Your task to perform on an android device: uninstall "Truecaller" Image 0: 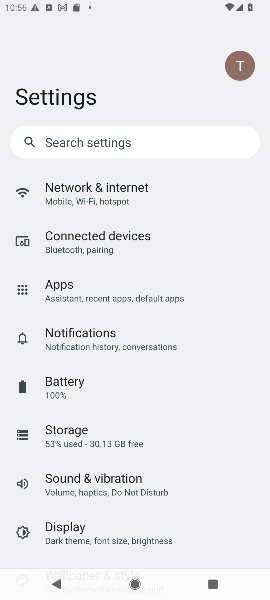
Step 0: press home button
Your task to perform on an android device: uninstall "Truecaller" Image 1: 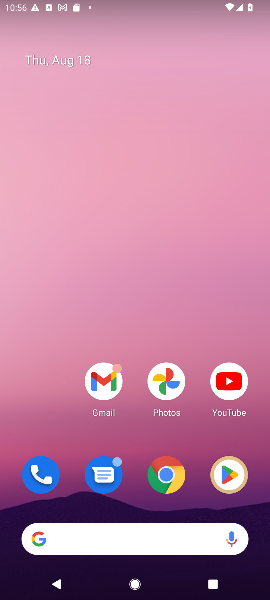
Step 1: drag from (147, 509) to (124, 97)
Your task to perform on an android device: uninstall "Truecaller" Image 2: 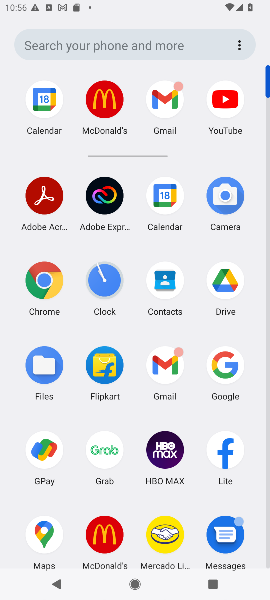
Step 2: drag from (65, 501) to (59, 209)
Your task to perform on an android device: uninstall "Truecaller" Image 3: 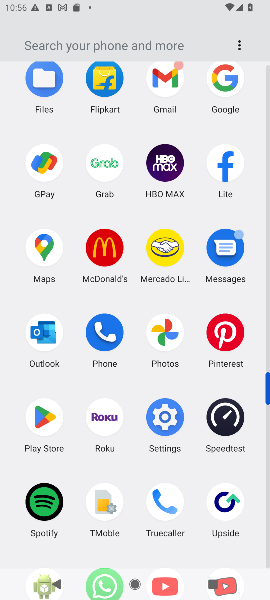
Step 3: drag from (130, 477) to (133, 199)
Your task to perform on an android device: uninstall "Truecaller" Image 4: 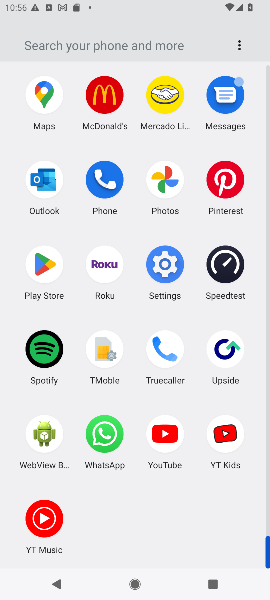
Step 4: click (46, 283)
Your task to perform on an android device: uninstall "Truecaller" Image 5: 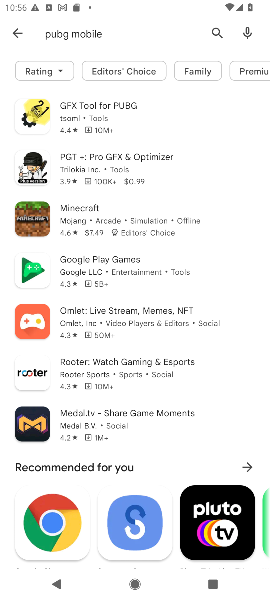
Step 5: click (11, 33)
Your task to perform on an android device: uninstall "Truecaller" Image 6: 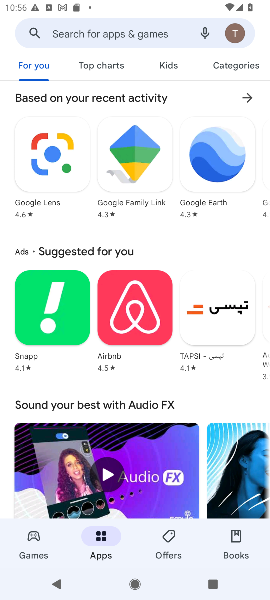
Step 6: click (59, 32)
Your task to perform on an android device: uninstall "Truecaller" Image 7: 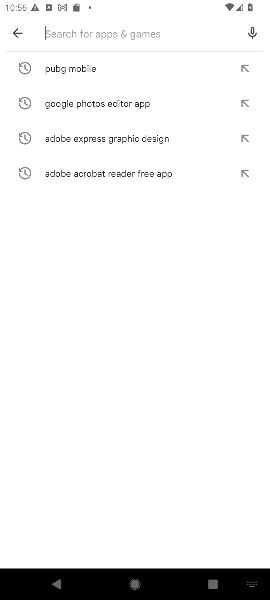
Step 7: type "Truecaller"
Your task to perform on an android device: uninstall "Truecaller" Image 8: 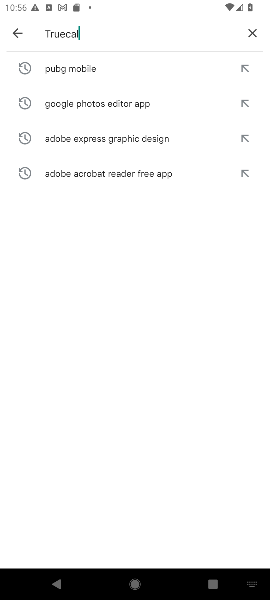
Step 8: type ""
Your task to perform on an android device: uninstall "Truecaller" Image 9: 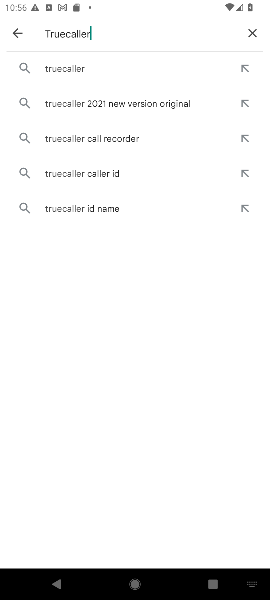
Step 9: click (74, 70)
Your task to perform on an android device: uninstall "Truecaller" Image 10: 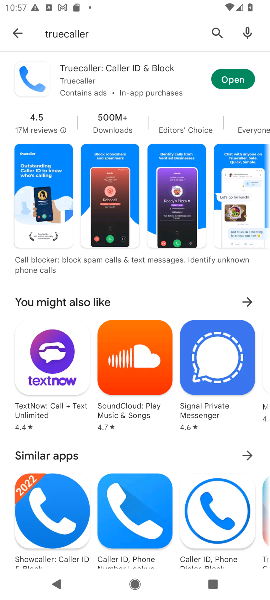
Step 10: click (93, 61)
Your task to perform on an android device: uninstall "Truecaller" Image 11: 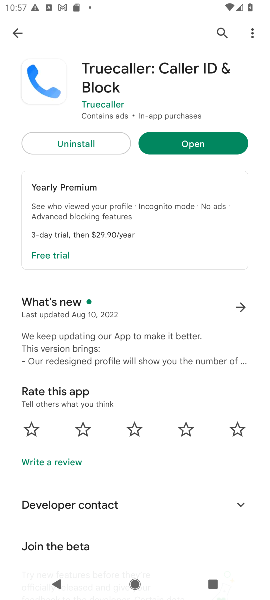
Step 11: click (96, 144)
Your task to perform on an android device: uninstall "Truecaller" Image 12: 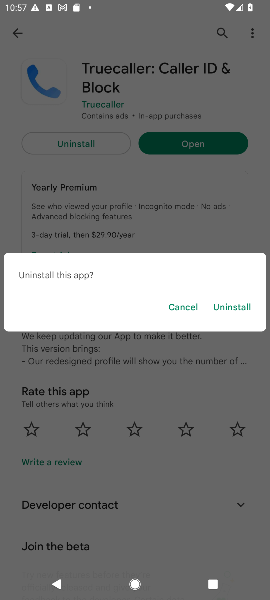
Step 12: click (230, 299)
Your task to perform on an android device: uninstall "Truecaller" Image 13: 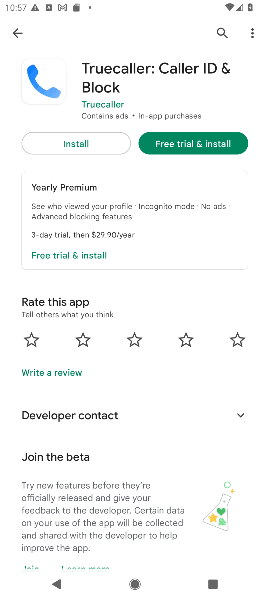
Step 13: task complete